Your task to perform on an android device: turn on javascript in the chrome app Image 0: 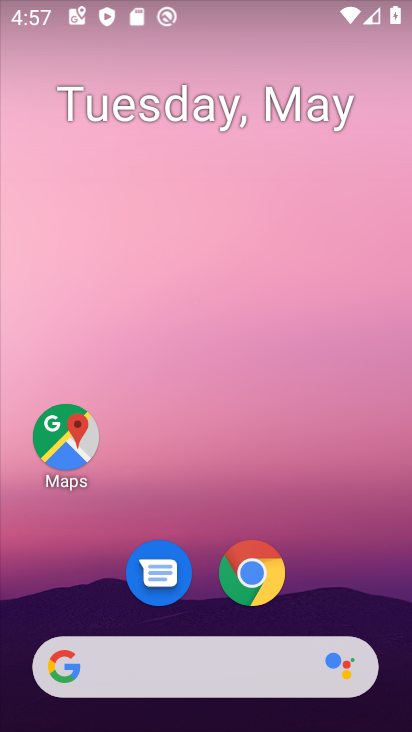
Step 0: click (256, 574)
Your task to perform on an android device: turn on javascript in the chrome app Image 1: 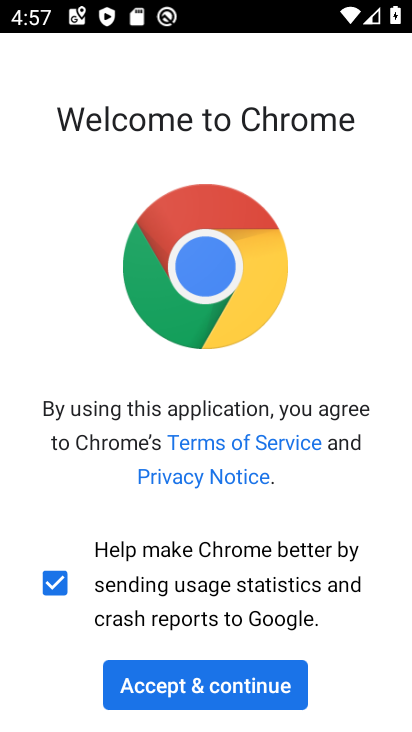
Step 1: click (253, 690)
Your task to perform on an android device: turn on javascript in the chrome app Image 2: 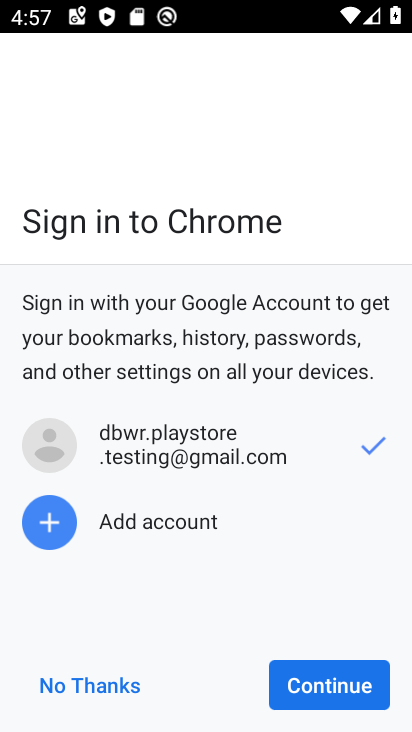
Step 2: click (305, 682)
Your task to perform on an android device: turn on javascript in the chrome app Image 3: 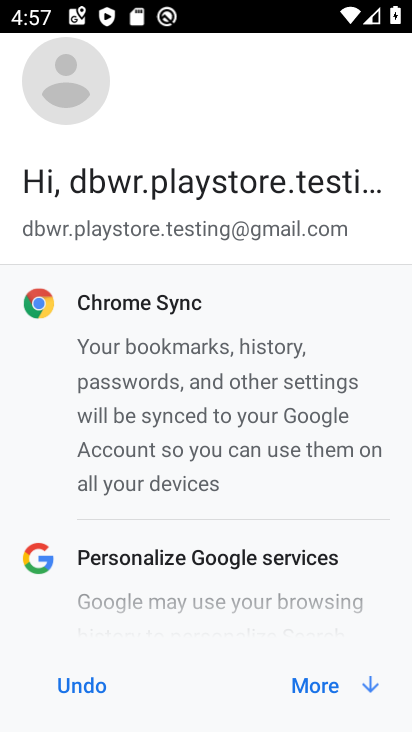
Step 3: click (321, 687)
Your task to perform on an android device: turn on javascript in the chrome app Image 4: 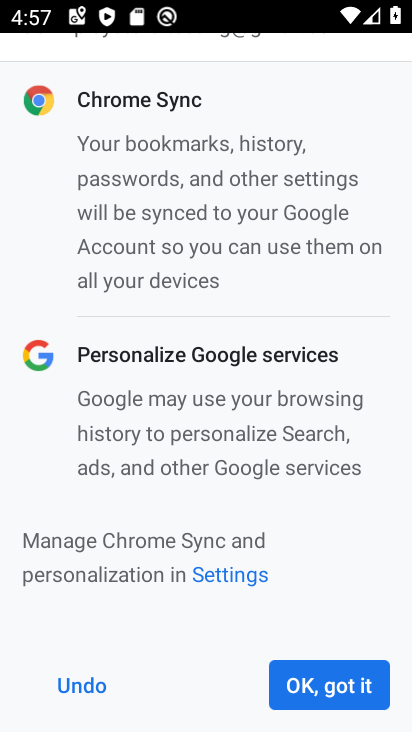
Step 4: click (321, 687)
Your task to perform on an android device: turn on javascript in the chrome app Image 5: 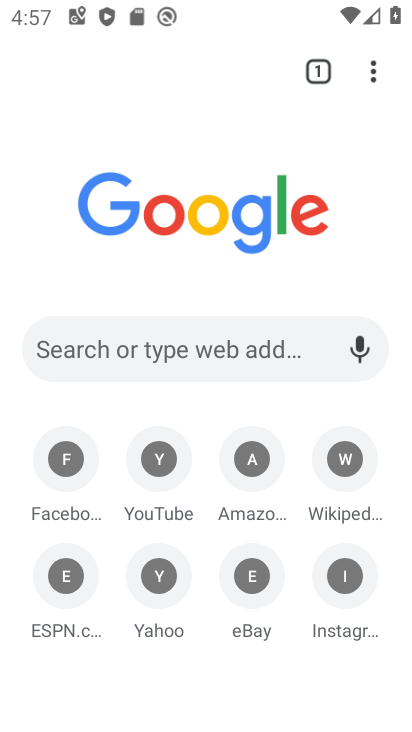
Step 5: click (400, 71)
Your task to perform on an android device: turn on javascript in the chrome app Image 6: 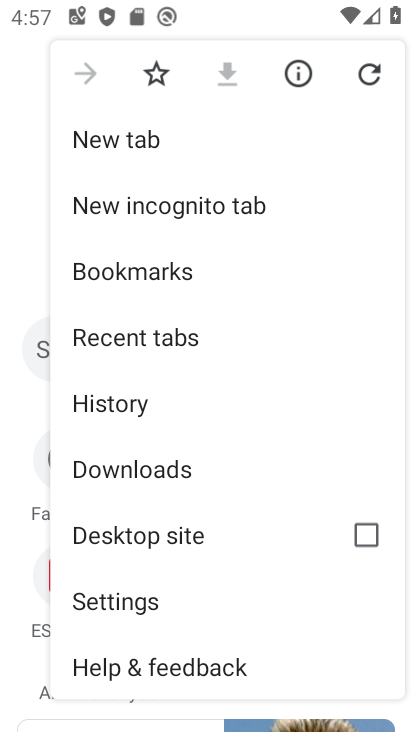
Step 6: click (157, 613)
Your task to perform on an android device: turn on javascript in the chrome app Image 7: 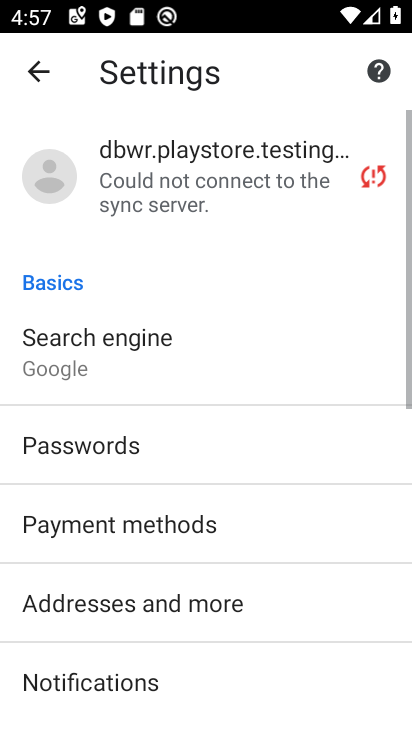
Step 7: drag from (157, 613) to (185, 217)
Your task to perform on an android device: turn on javascript in the chrome app Image 8: 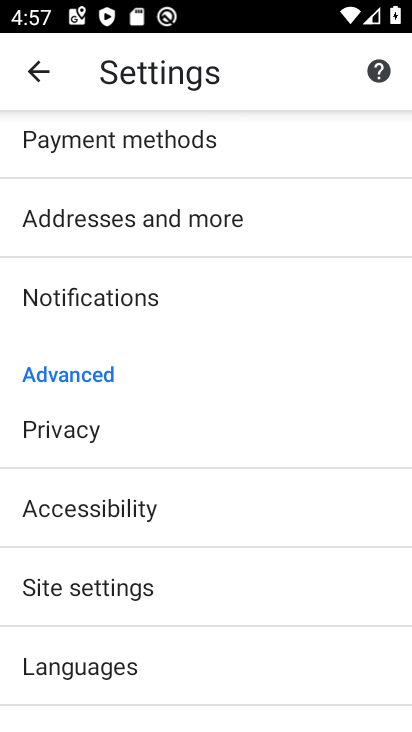
Step 8: click (182, 571)
Your task to perform on an android device: turn on javascript in the chrome app Image 9: 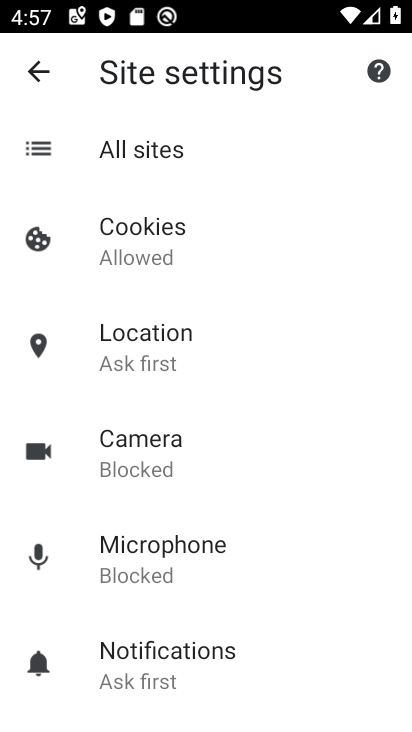
Step 9: drag from (142, 654) to (154, 431)
Your task to perform on an android device: turn on javascript in the chrome app Image 10: 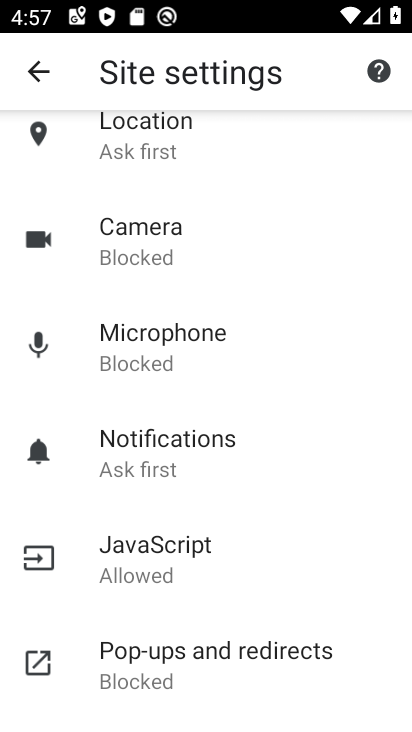
Step 10: click (170, 546)
Your task to perform on an android device: turn on javascript in the chrome app Image 11: 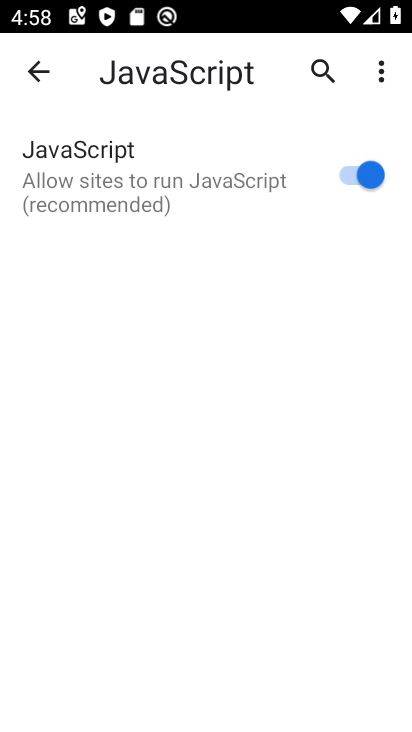
Step 11: task complete